Your task to perform on an android device: Open Youtube and go to "Your channel" Image 0: 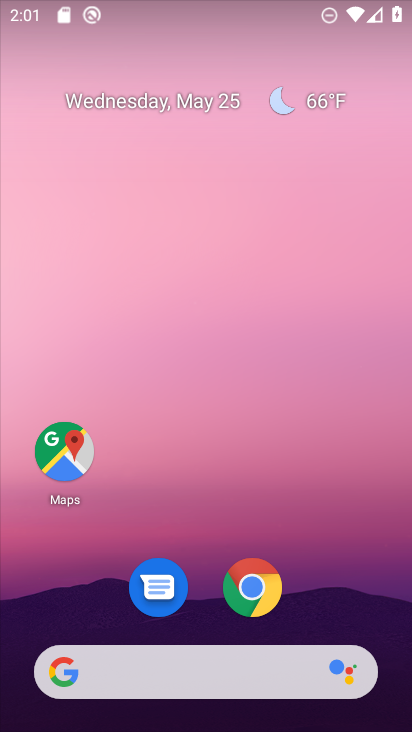
Step 0: drag from (383, 617) to (362, 219)
Your task to perform on an android device: Open Youtube and go to "Your channel" Image 1: 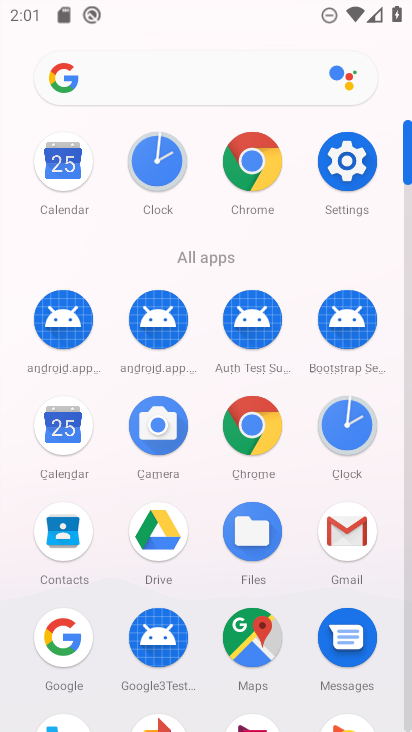
Step 1: drag from (287, 639) to (292, 427)
Your task to perform on an android device: Open Youtube and go to "Your channel" Image 2: 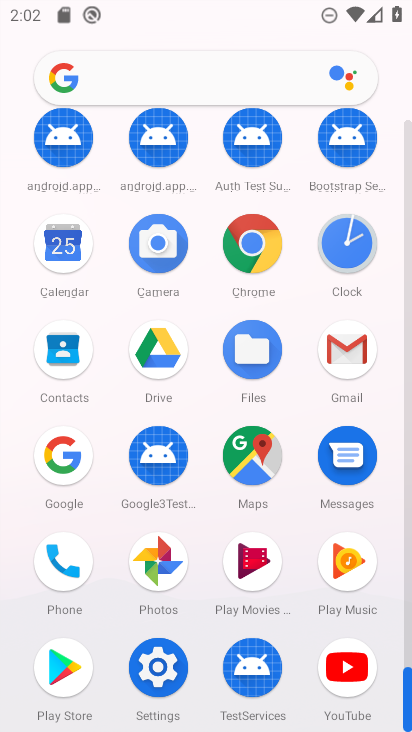
Step 2: click (357, 672)
Your task to perform on an android device: Open Youtube and go to "Your channel" Image 3: 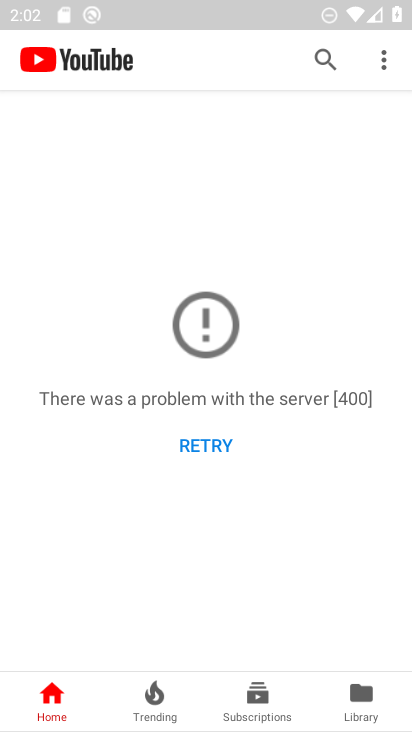
Step 3: click (383, 70)
Your task to perform on an android device: Open Youtube and go to "Your channel" Image 4: 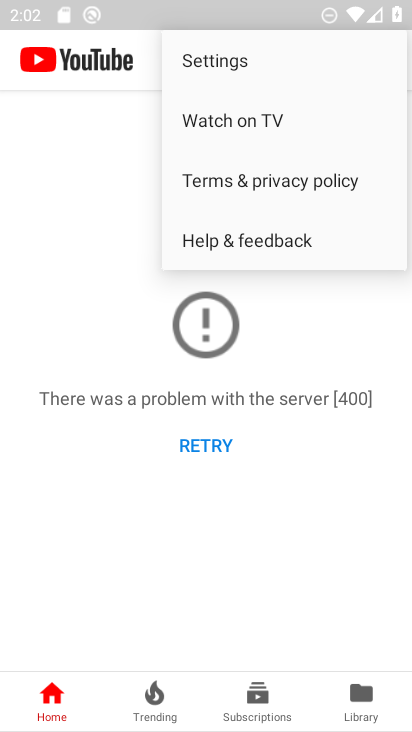
Step 4: click (244, 62)
Your task to perform on an android device: Open Youtube and go to "Your channel" Image 5: 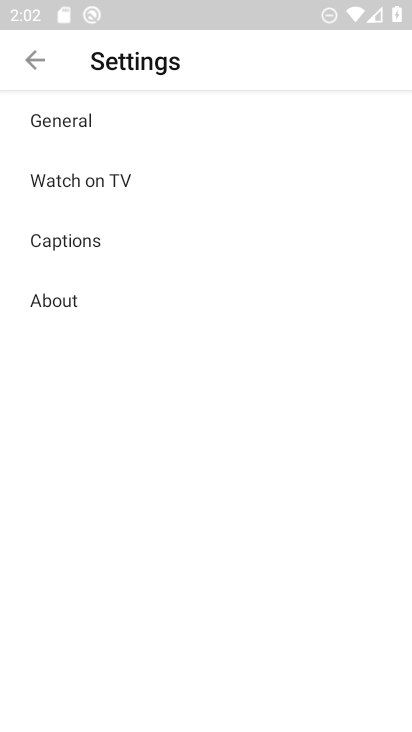
Step 5: click (32, 55)
Your task to perform on an android device: Open Youtube and go to "Your channel" Image 6: 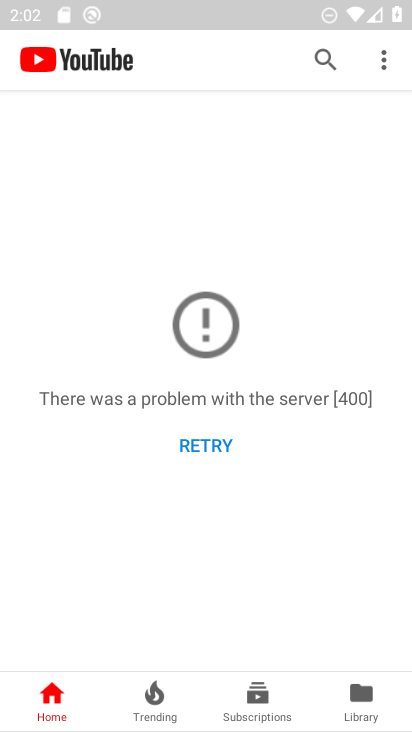
Step 6: click (377, 66)
Your task to perform on an android device: Open Youtube and go to "Your channel" Image 7: 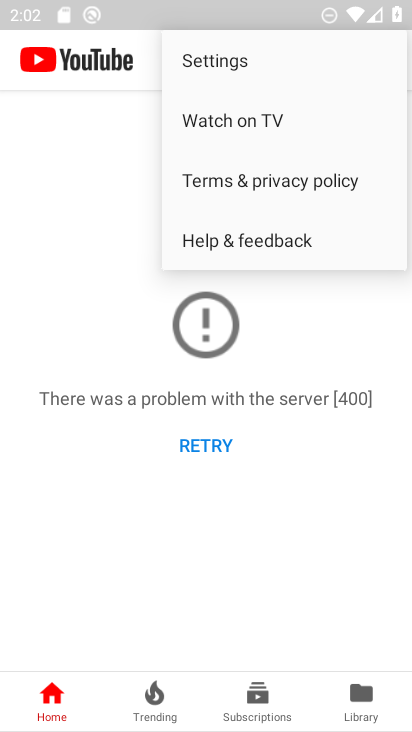
Step 7: task complete